Your task to perform on an android device: toggle data saver in the chrome app Image 0: 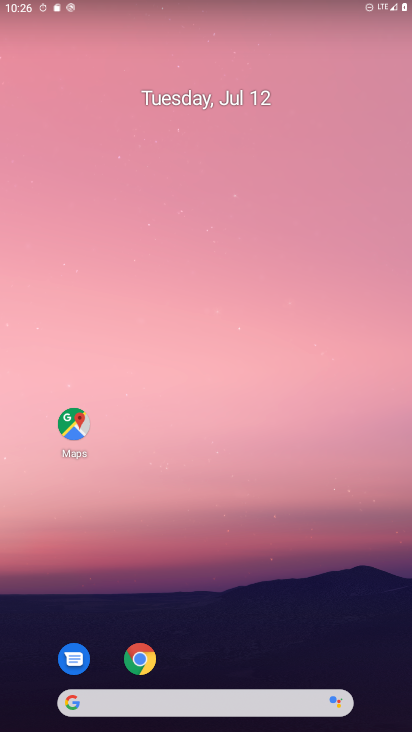
Step 0: drag from (337, 661) to (1, 141)
Your task to perform on an android device: toggle data saver in the chrome app Image 1: 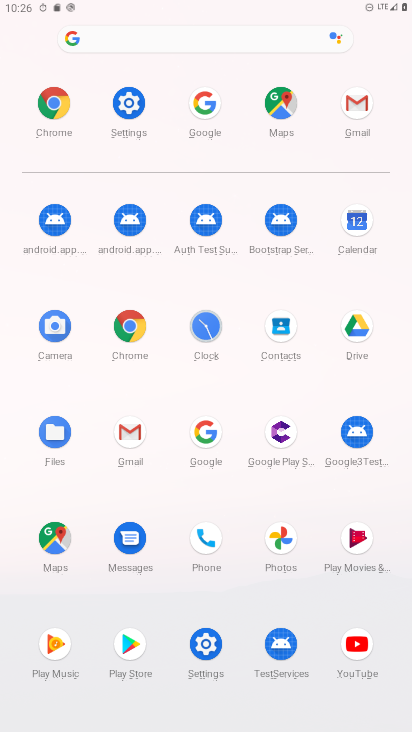
Step 1: click (40, 102)
Your task to perform on an android device: toggle data saver in the chrome app Image 2: 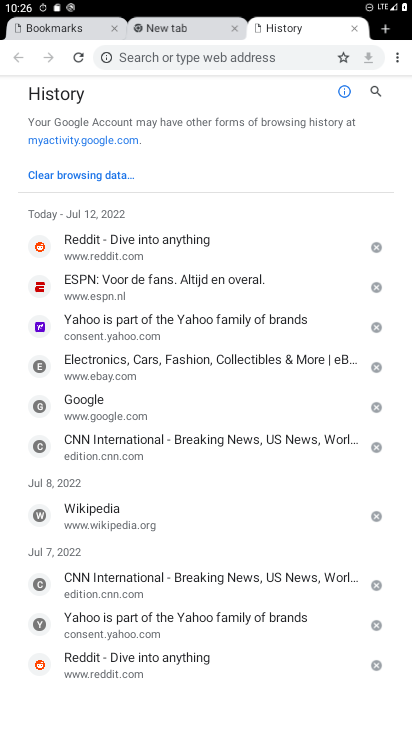
Step 2: press back button
Your task to perform on an android device: toggle data saver in the chrome app Image 3: 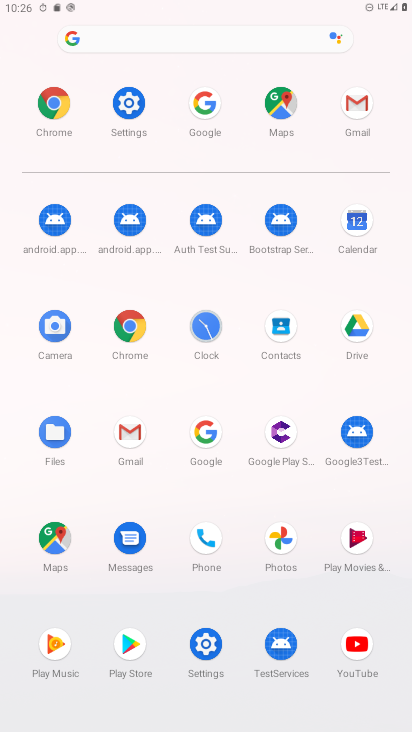
Step 3: click (131, 321)
Your task to perform on an android device: toggle data saver in the chrome app Image 4: 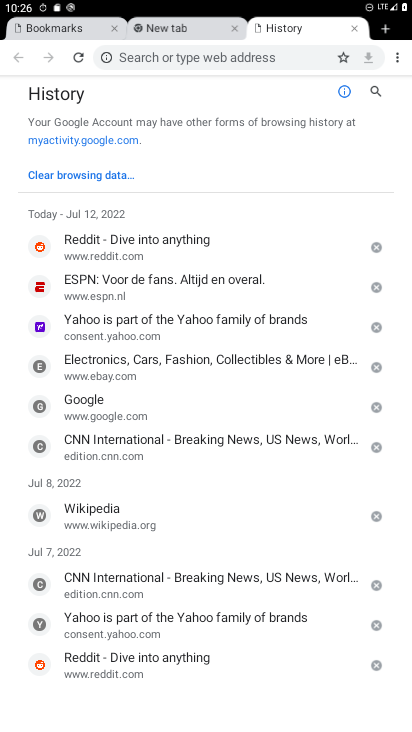
Step 4: click (395, 55)
Your task to perform on an android device: toggle data saver in the chrome app Image 5: 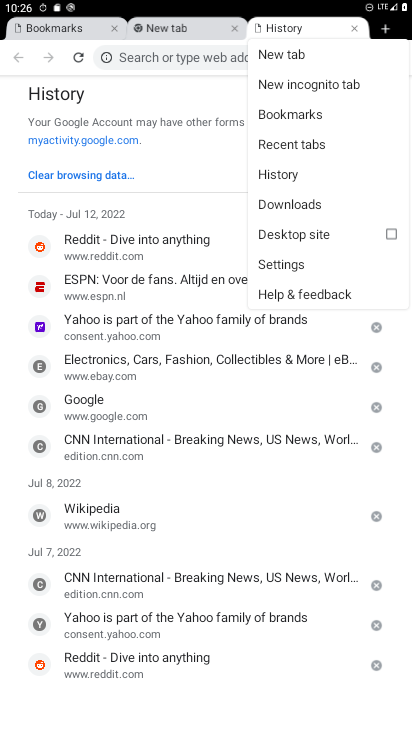
Step 5: click (300, 260)
Your task to perform on an android device: toggle data saver in the chrome app Image 6: 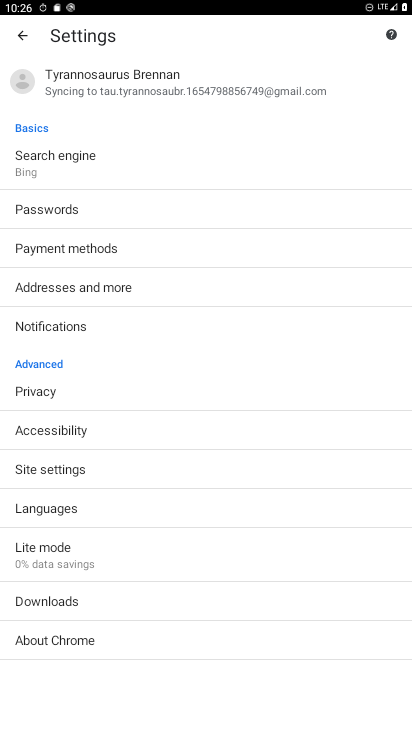
Step 6: click (117, 563)
Your task to perform on an android device: toggle data saver in the chrome app Image 7: 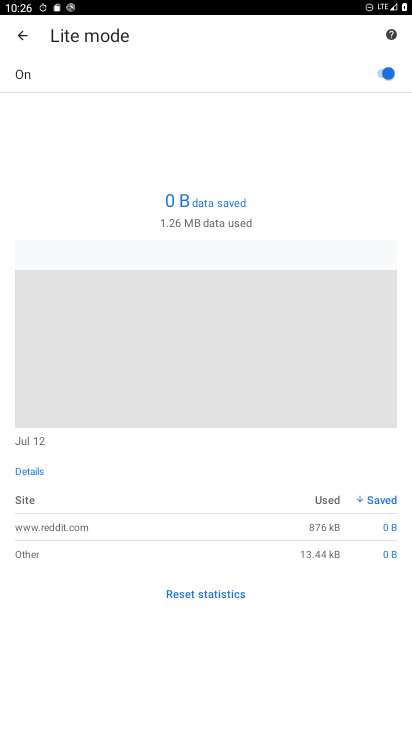
Step 7: click (381, 78)
Your task to perform on an android device: toggle data saver in the chrome app Image 8: 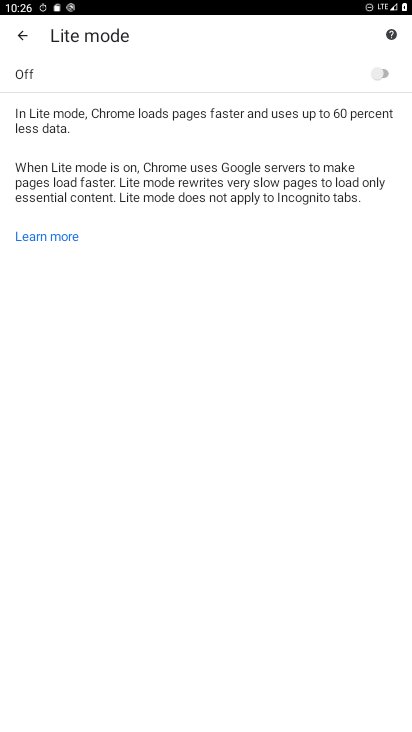
Step 8: task complete